Your task to perform on an android device: uninstall "Google Play Music" Image 0: 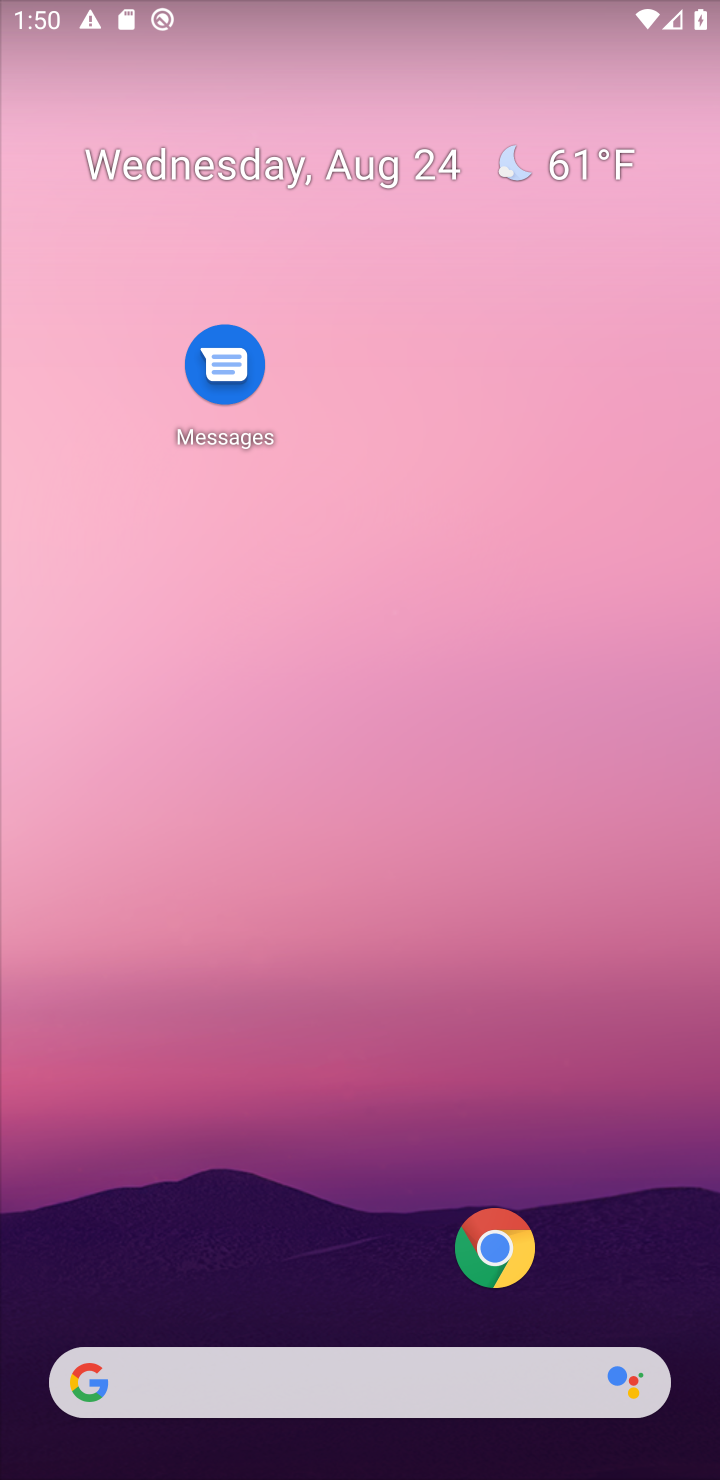
Step 0: drag from (303, 1244) to (451, 600)
Your task to perform on an android device: uninstall "Google Play Music" Image 1: 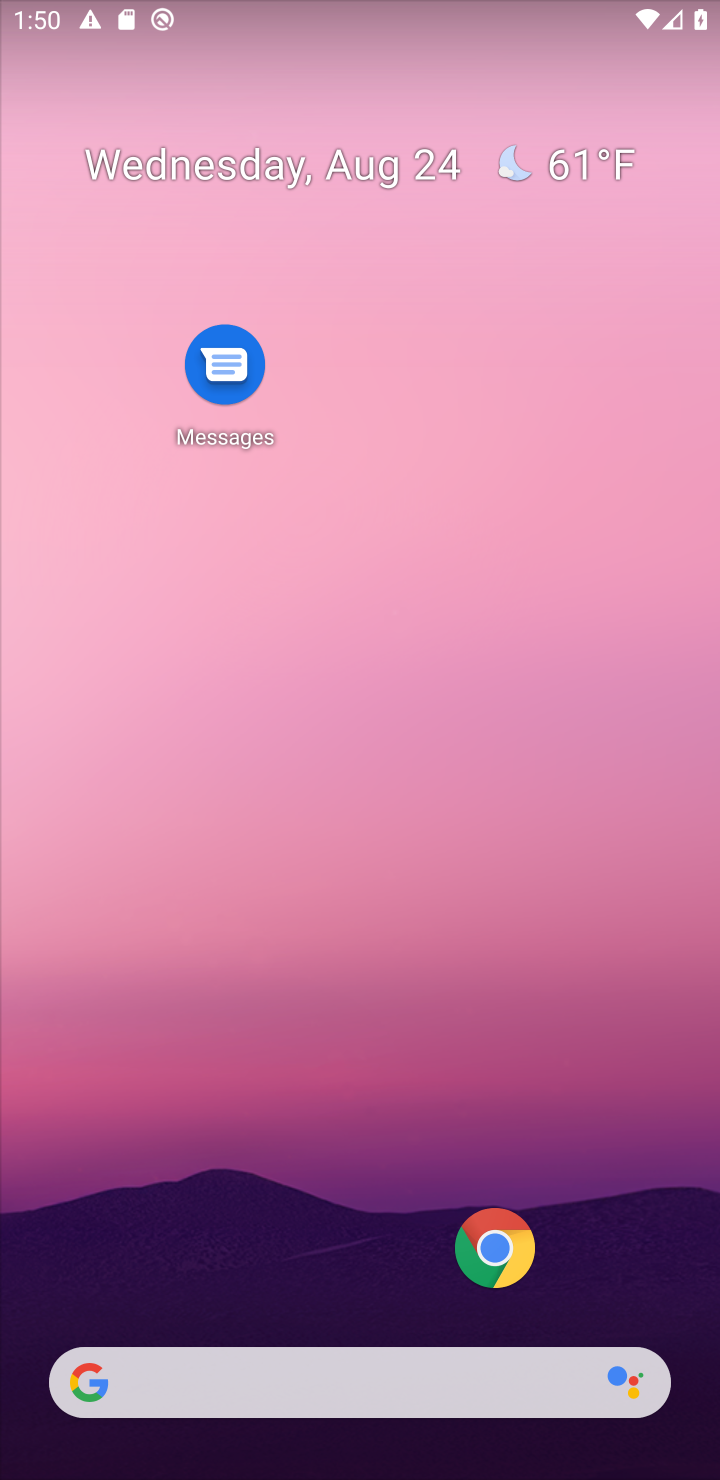
Step 1: drag from (219, 1214) to (310, 626)
Your task to perform on an android device: uninstall "Google Play Music" Image 2: 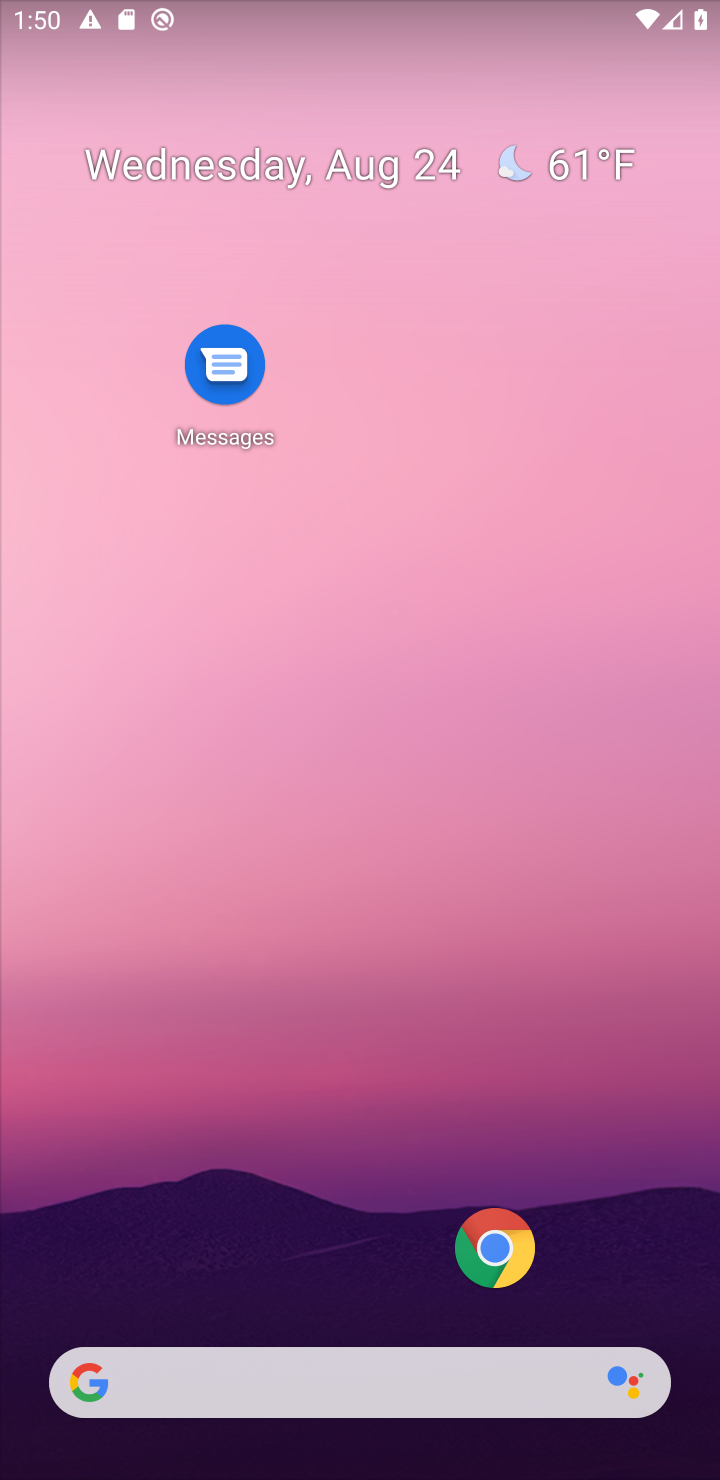
Step 2: drag from (280, 1255) to (300, 837)
Your task to perform on an android device: uninstall "Google Play Music" Image 3: 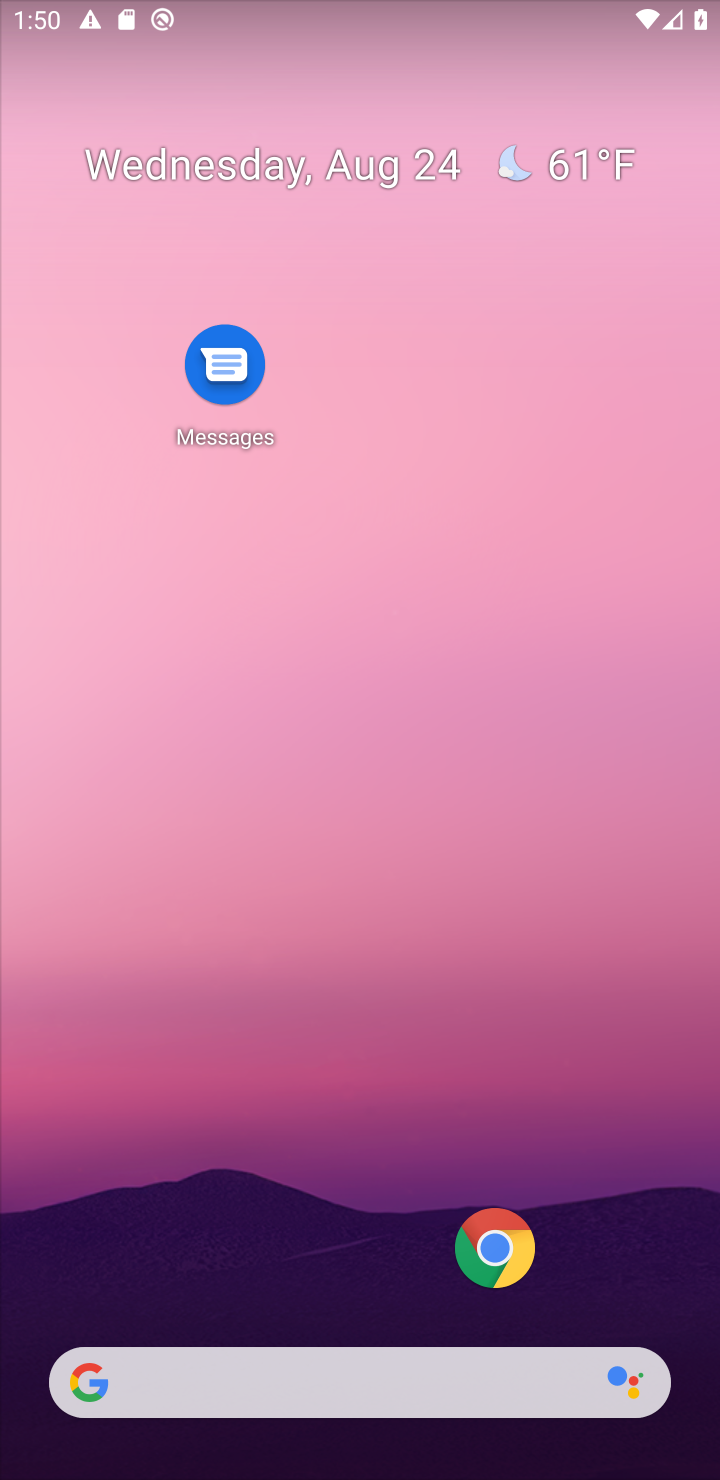
Step 3: drag from (360, 1122) to (411, 216)
Your task to perform on an android device: uninstall "Google Play Music" Image 4: 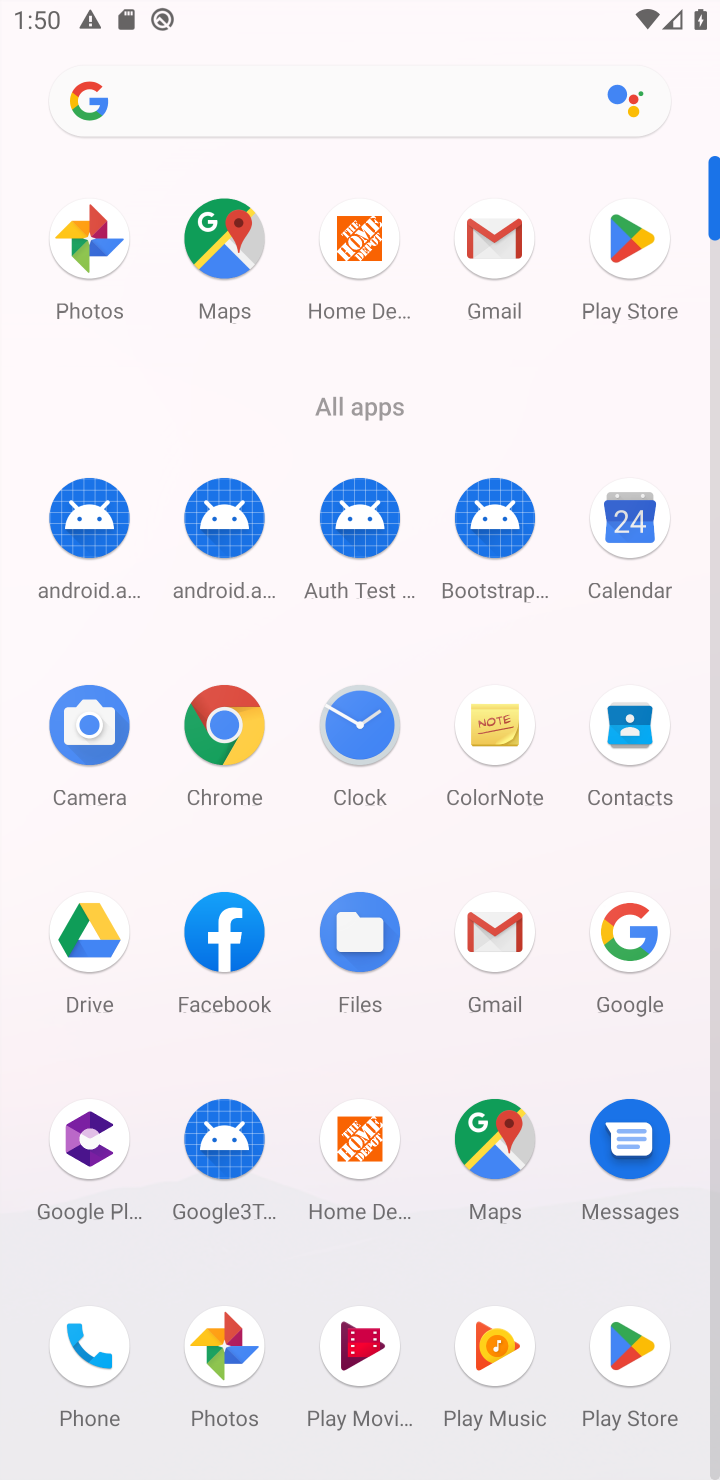
Step 4: click (633, 233)
Your task to perform on an android device: uninstall "Google Play Music" Image 5: 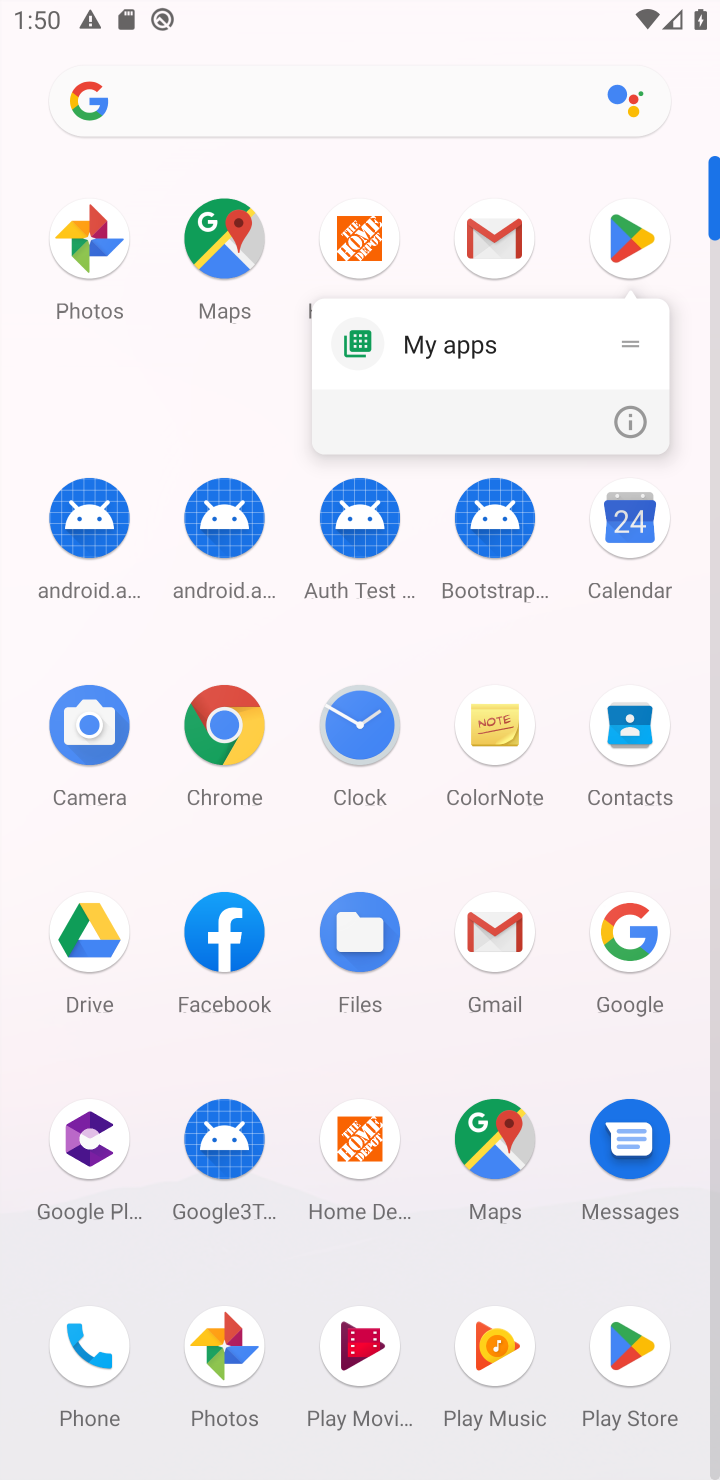
Step 5: click (607, 243)
Your task to perform on an android device: uninstall "Google Play Music" Image 6: 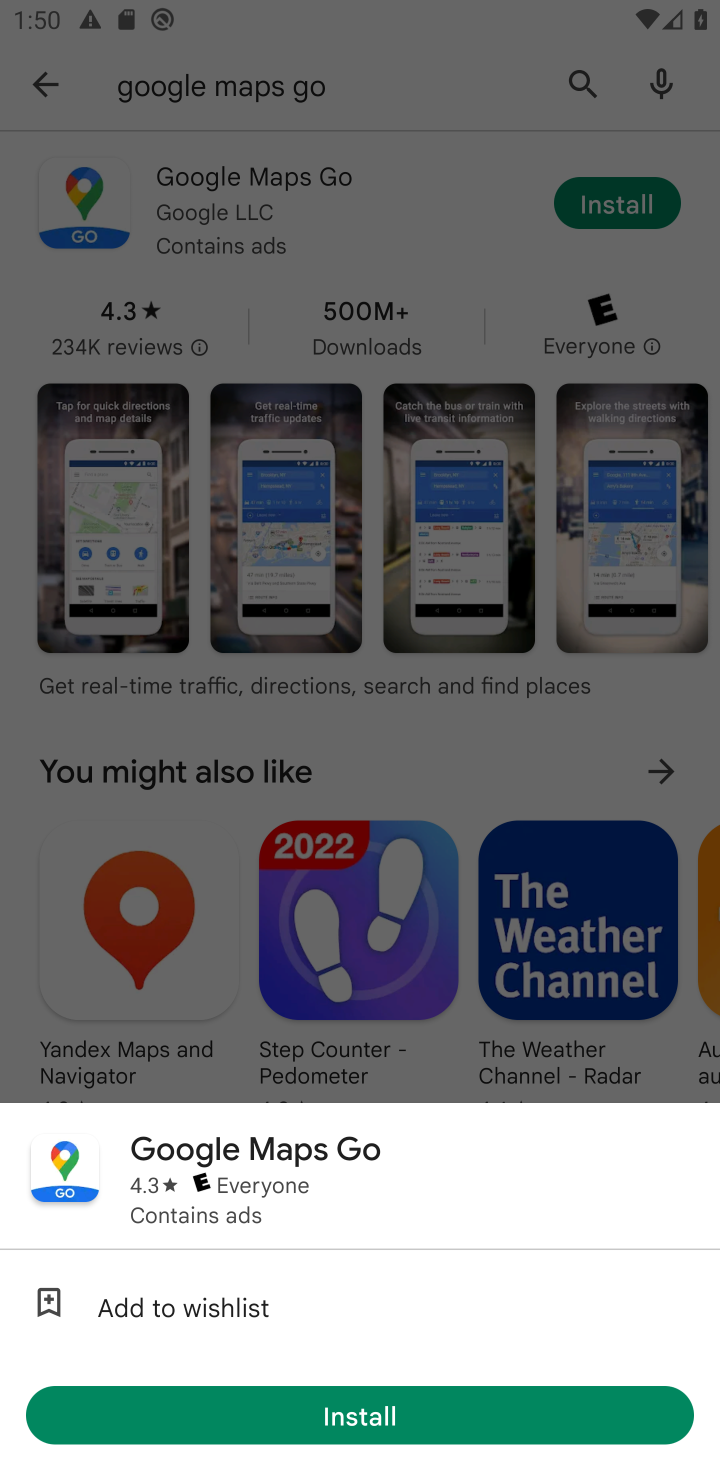
Step 6: click (569, 72)
Your task to perform on an android device: uninstall "Google Play Music" Image 7: 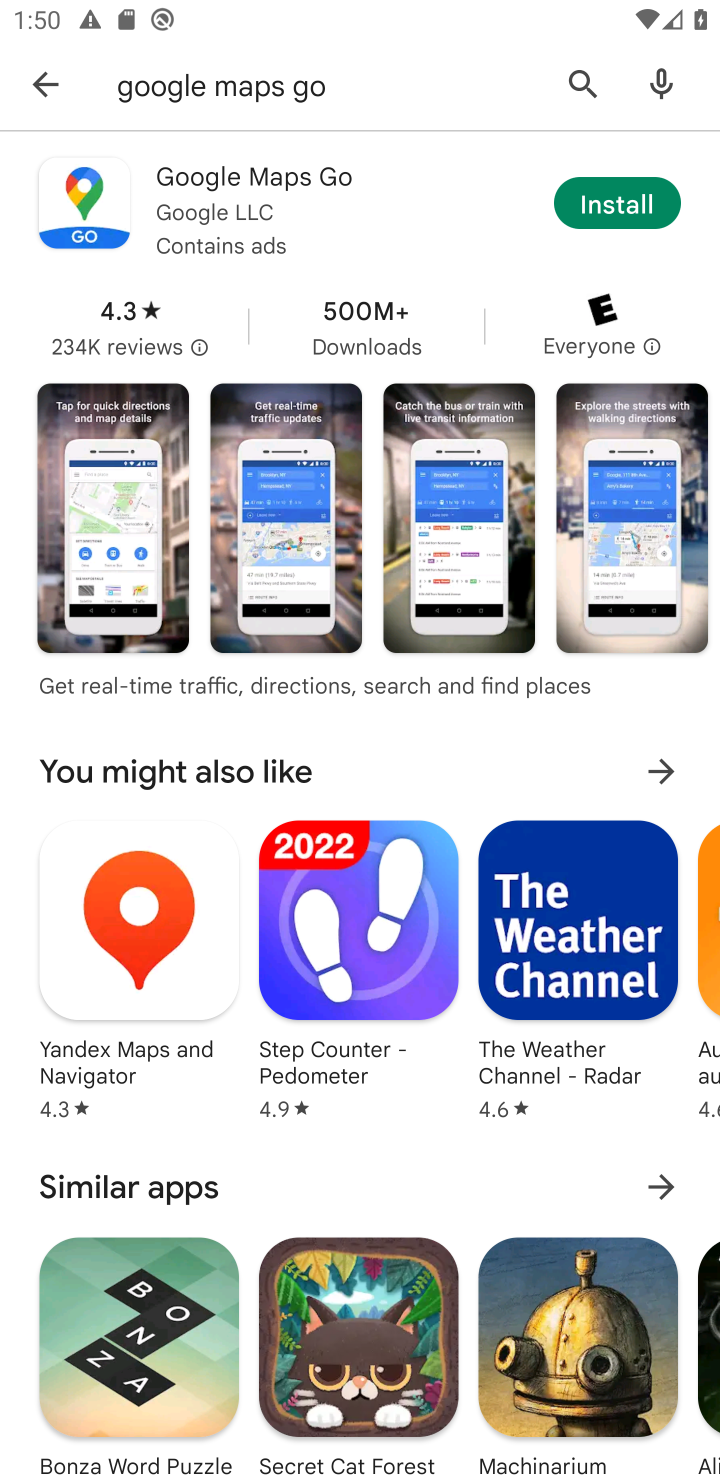
Step 7: click (569, 72)
Your task to perform on an android device: uninstall "Google Play Music" Image 8: 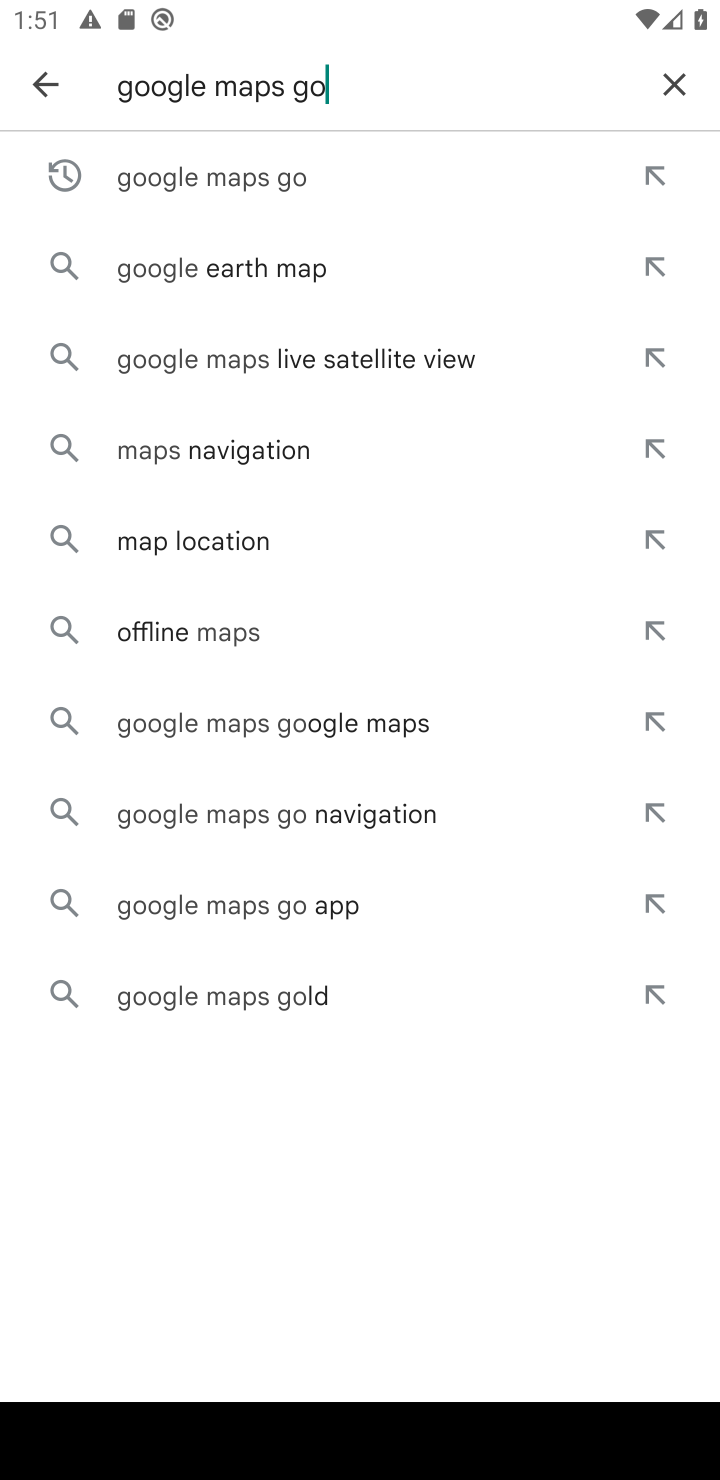
Step 8: click (668, 79)
Your task to perform on an android device: uninstall "Google Play Music" Image 9: 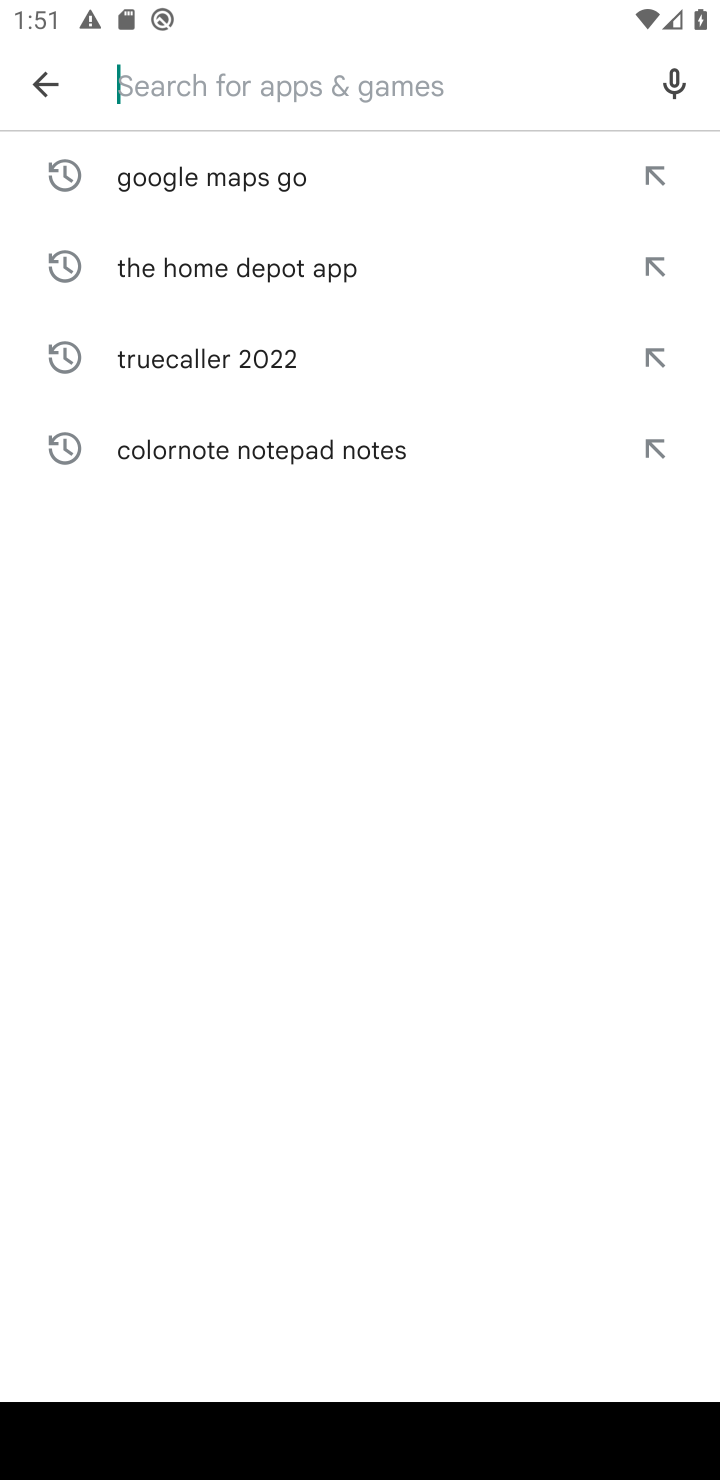
Step 9: click (319, 84)
Your task to perform on an android device: uninstall "Google Play Music" Image 10: 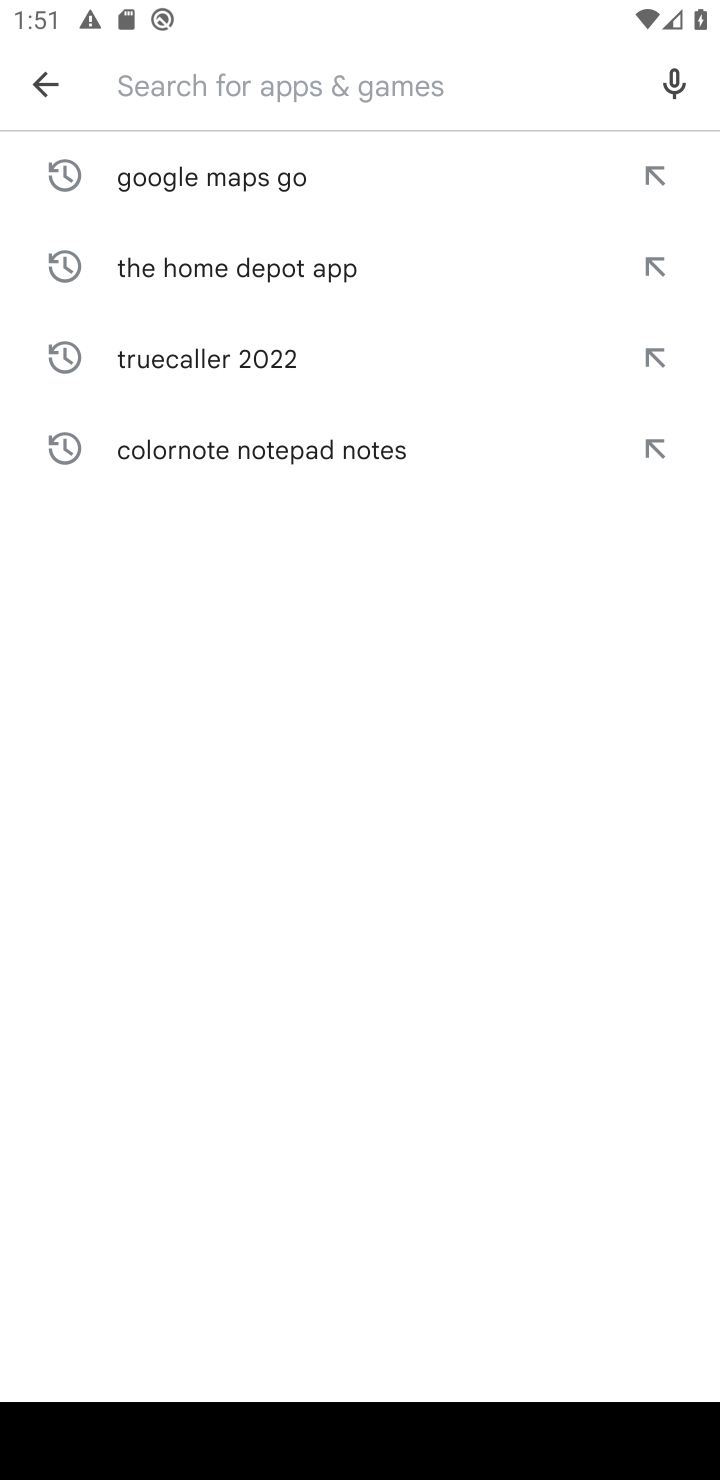
Step 10: type "Google Play Music "
Your task to perform on an android device: uninstall "Google Play Music" Image 11: 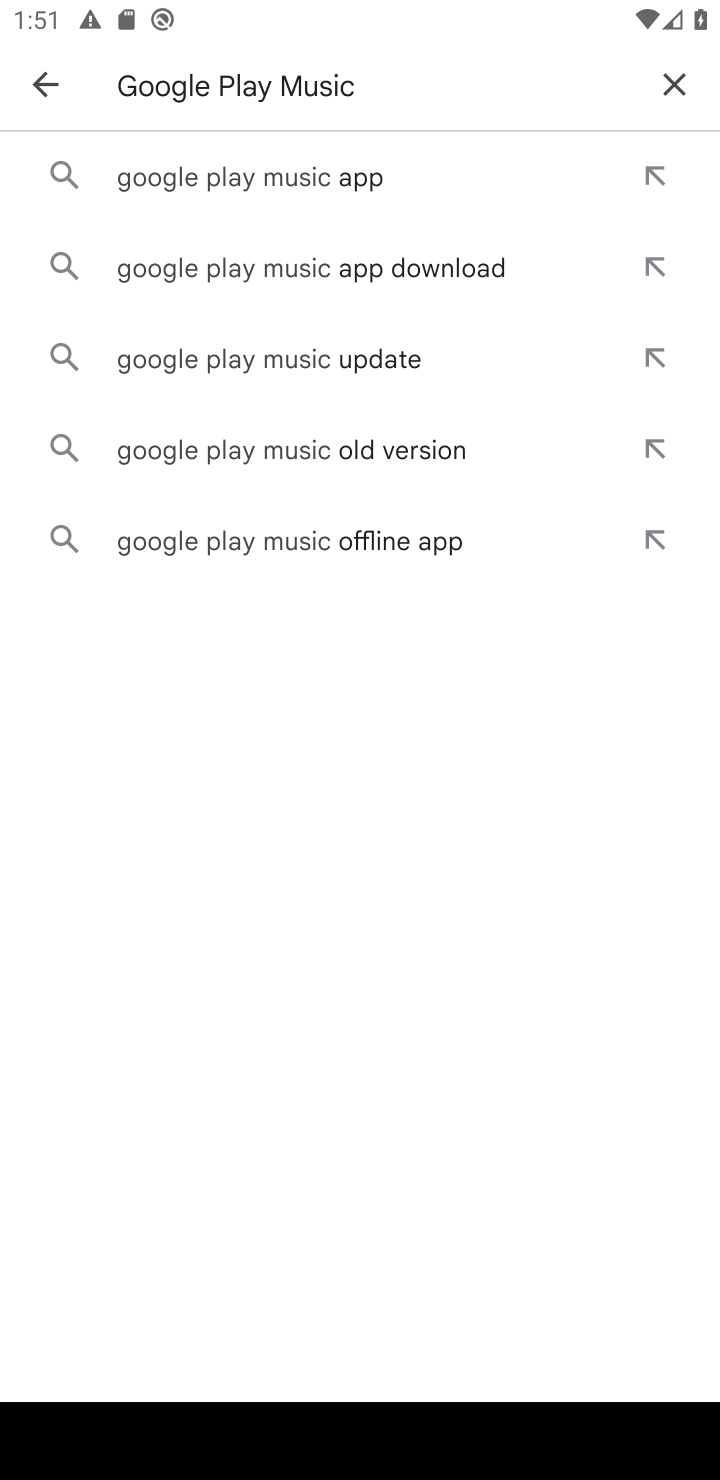
Step 11: click (171, 189)
Your task to perform on an android device: uninstall "Google Play Music" Image 12: 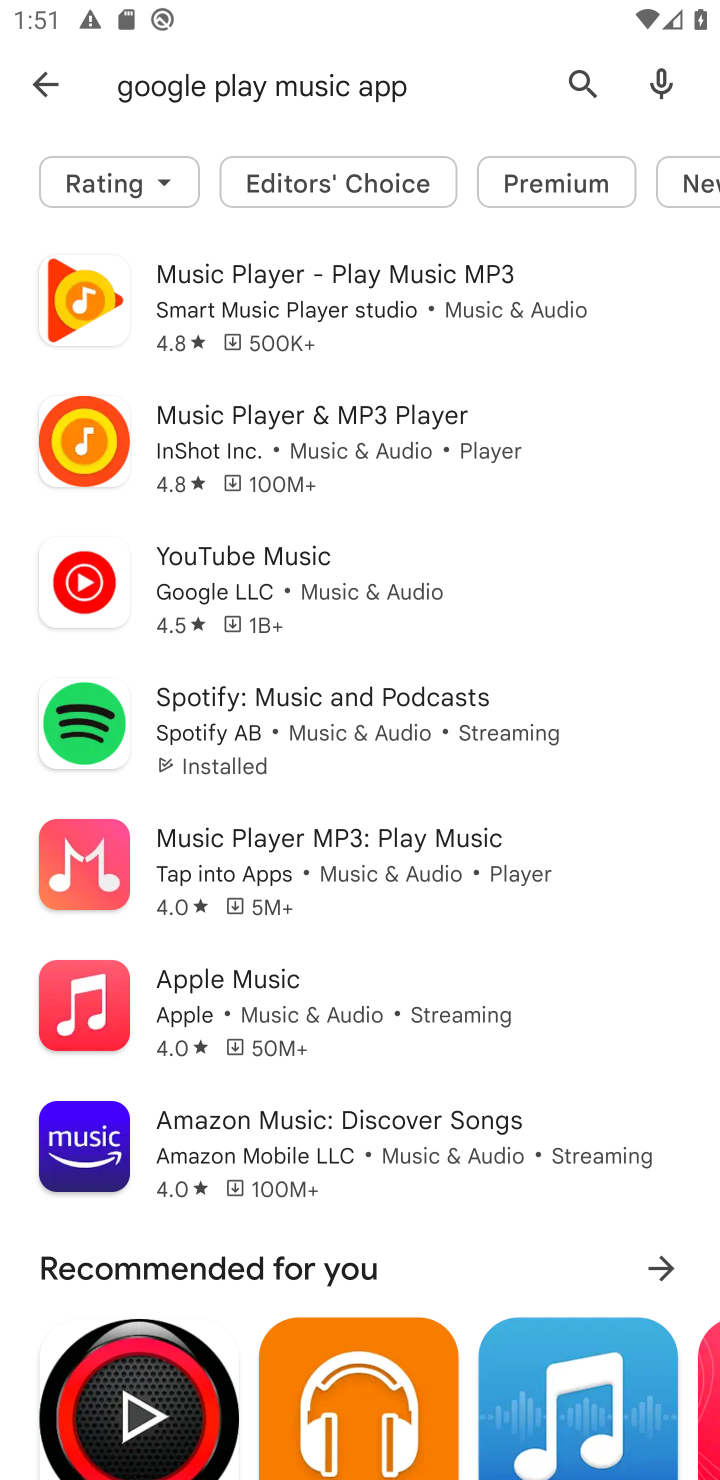
Step 12: click (256, 735)
Your task to perform on an android device: uninstall "Google Play Music" Image 13: 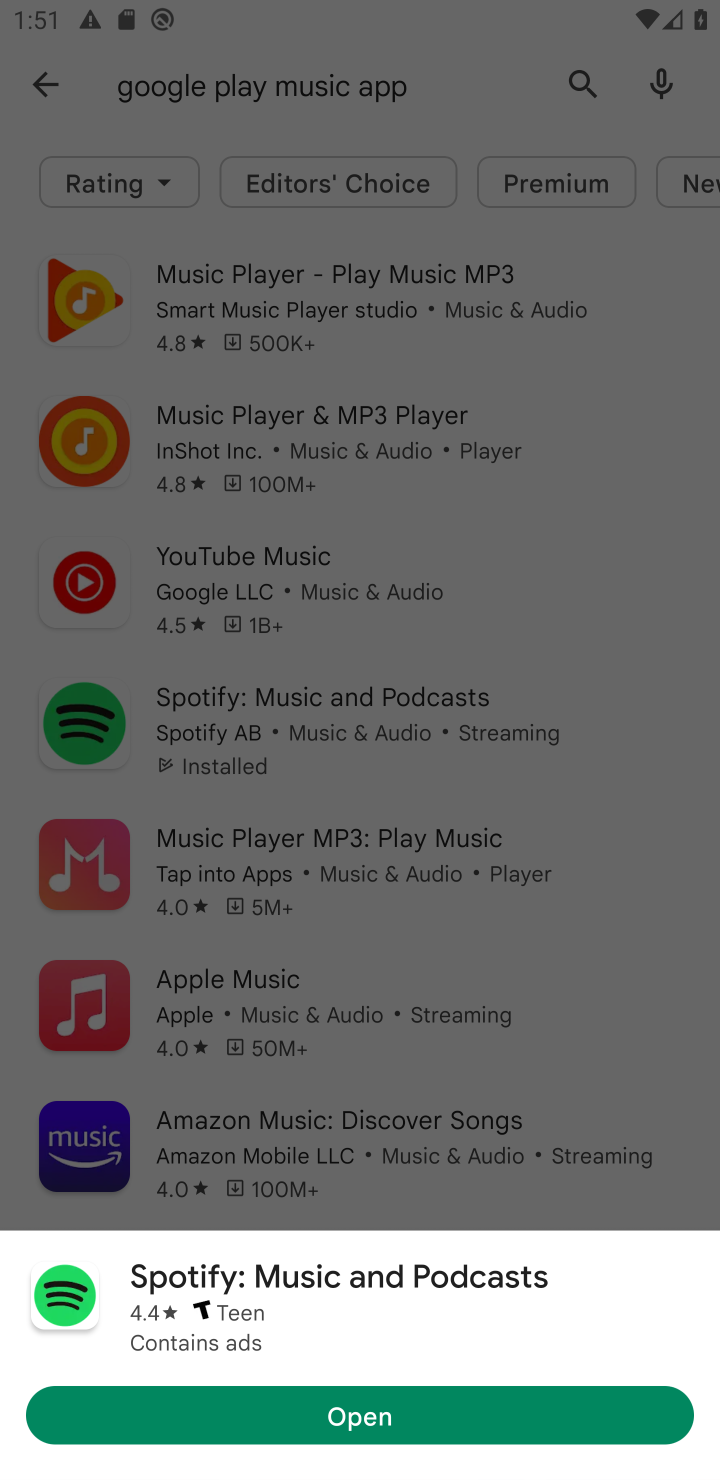
Step 13: click (267, 1300)
Your task to perform on an android device: uninstall "Google Play Music" Image 14: 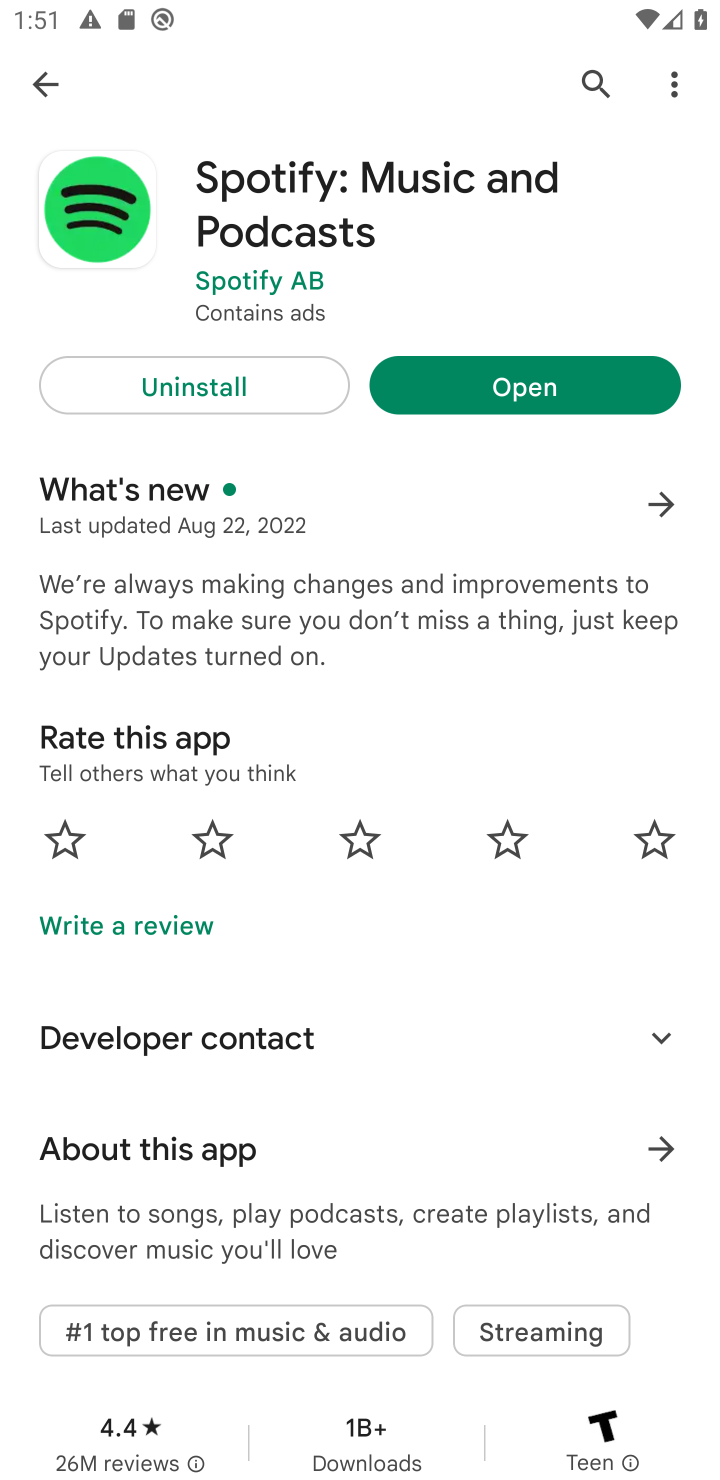
Step 14: click (273, 378)
Your task to perform on an android device: uninstall "Google Play Music" Image 15: 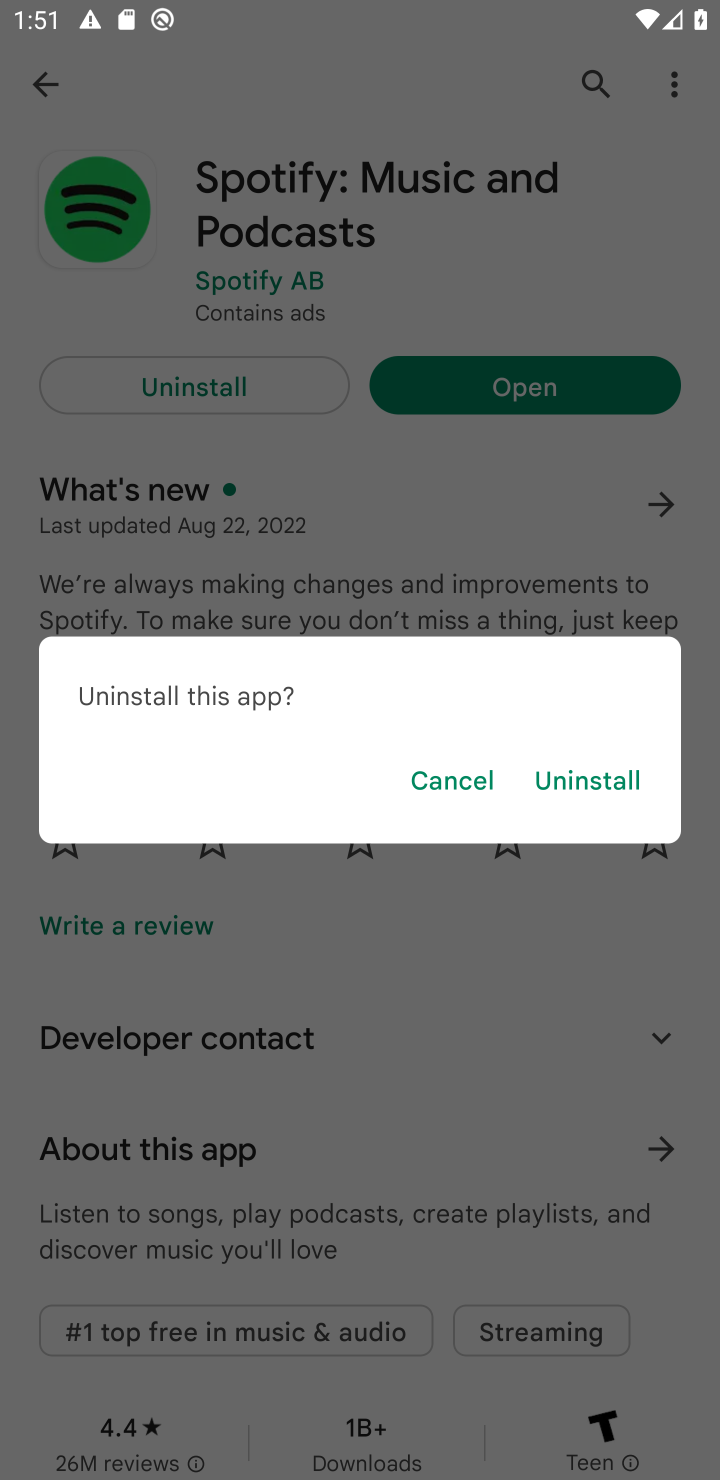
Step 15: click (582, 765)
Your task to perform on an android device: uninstall "Google Play Music" Image 16: 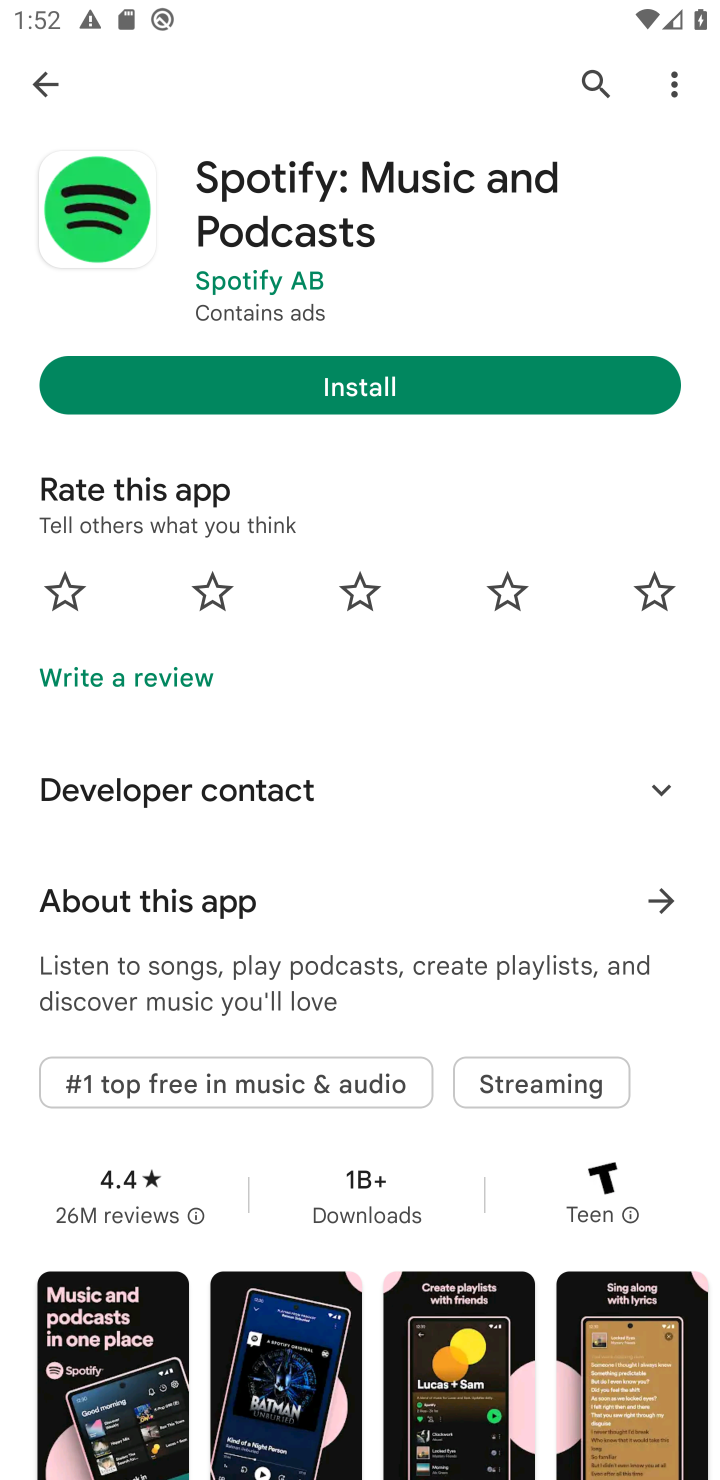
Step 16: task complete